Your task to perform on an android device: turn on the 12-hour format for clock Image 0: 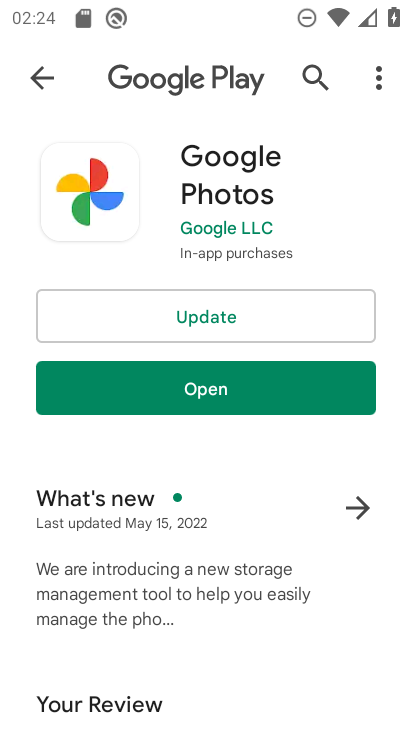
Step 0: press home button
Your task to perform on an android device: turn on the 12-hour format for clock Image 1: 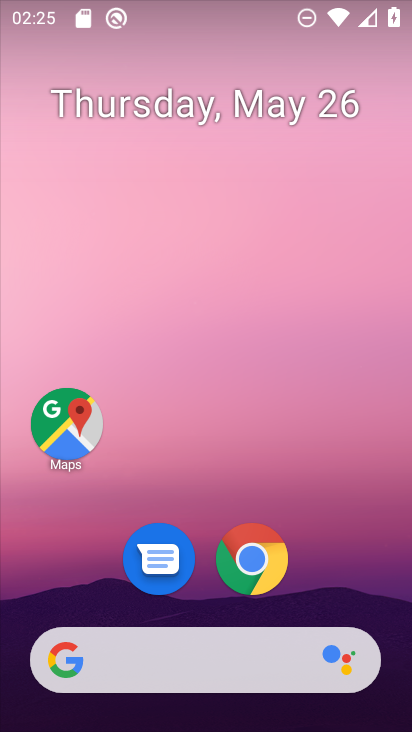
Step 1: drag from (275, 648) to (405, 202)
Your task to perform on an android device: turn on the 12-hour format for clock Image 2: 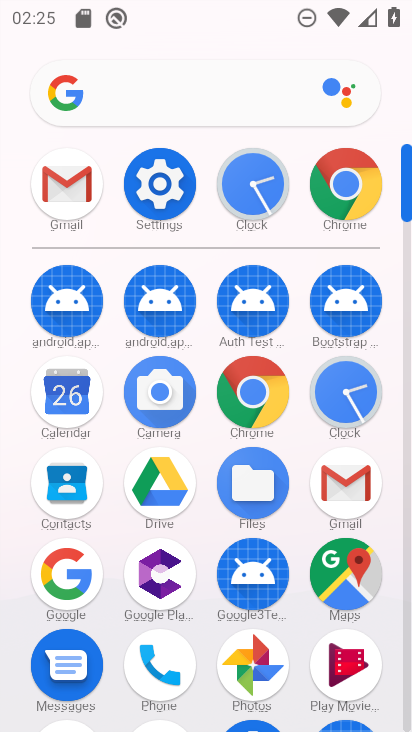
Step 2: click (351, 386)
Your task to perform on an android device: turn on the 12-hour format for clock Image 3: 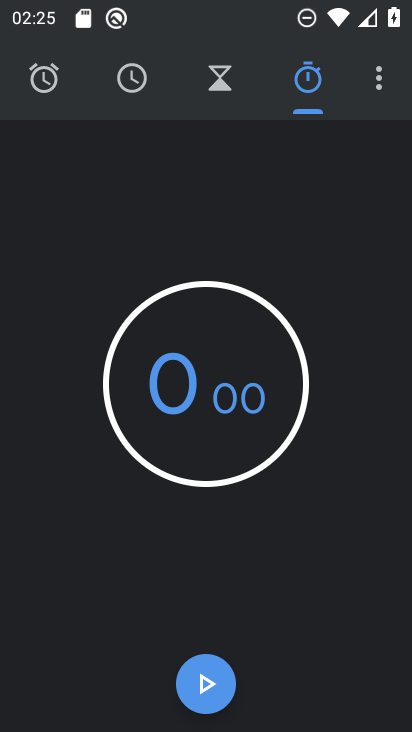
Step 3: click (372, 85)
Your task to perform on an android device: turn on the 12-hour format for clock Image 4: 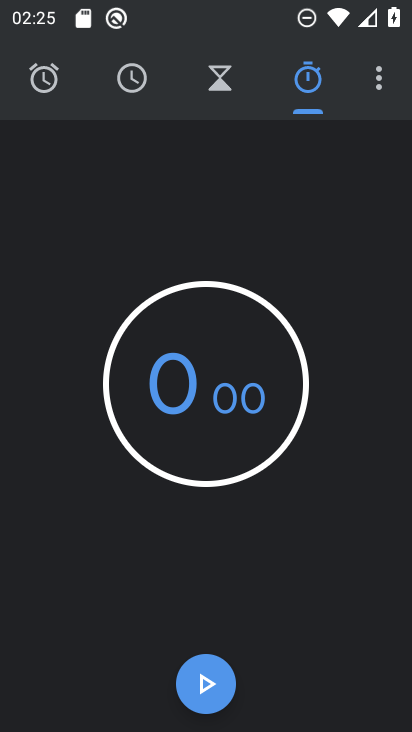
Step 4: click (387, 90)
Your task to perform on an android device: turn on the 12-hour format for clock Image 5: 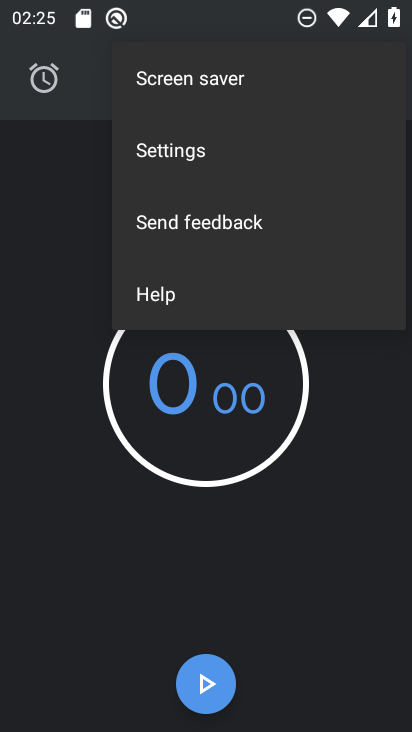
Step 5: click (212, 144)
Your task to perform on an android device: turn on the 12-hour format for clock Image 6: 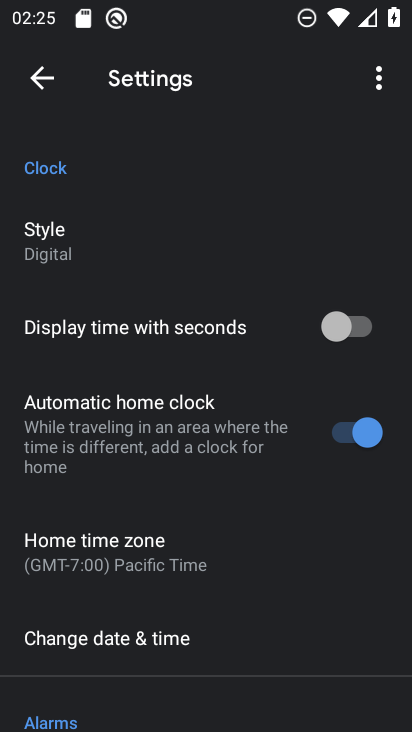
Step 6: click (156, 634)
Your task to perform on an android device: turn on the 12-hour format for clock Image 7: 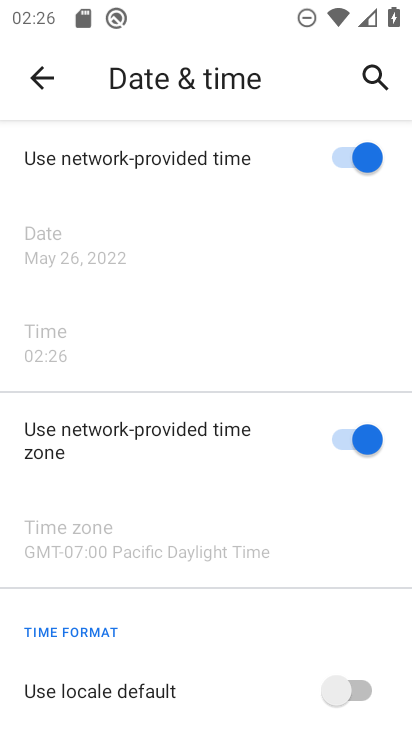
Step 7: drag from (254, 609) to (339, 311)
Your task to perform on an android device: turn on the 12-hour format for clock Image 8: 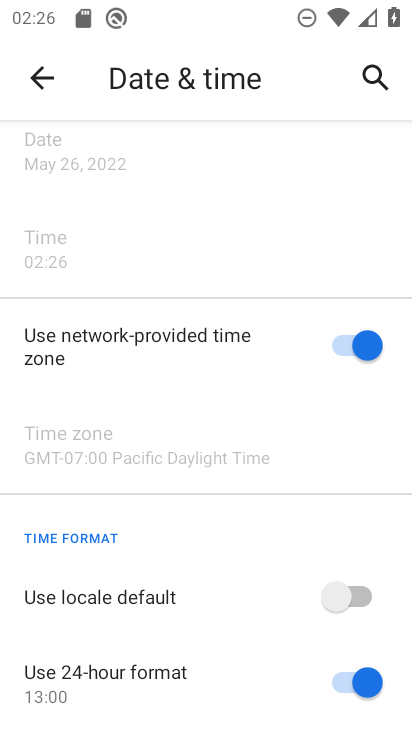
Step 8: click (348, 591)
Your task to perform on an android device: turn on the 12-hour format for clock Image 9: 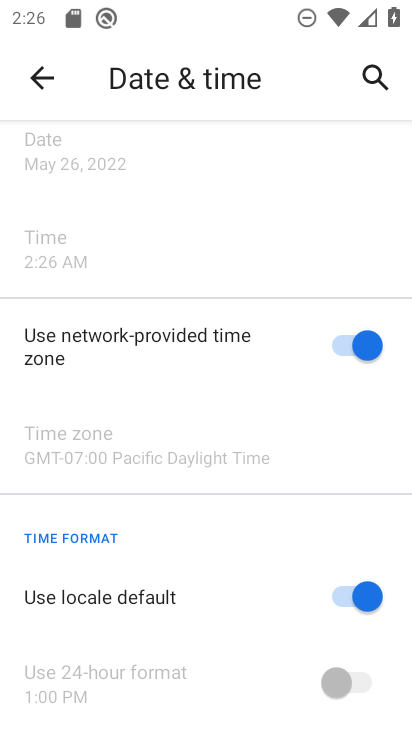
Step 9: task complete